Your task to perform on an android device: open app "Upside-Cash back on gas & food" (install if not already installed), go to login, and select forgot password Image 0: 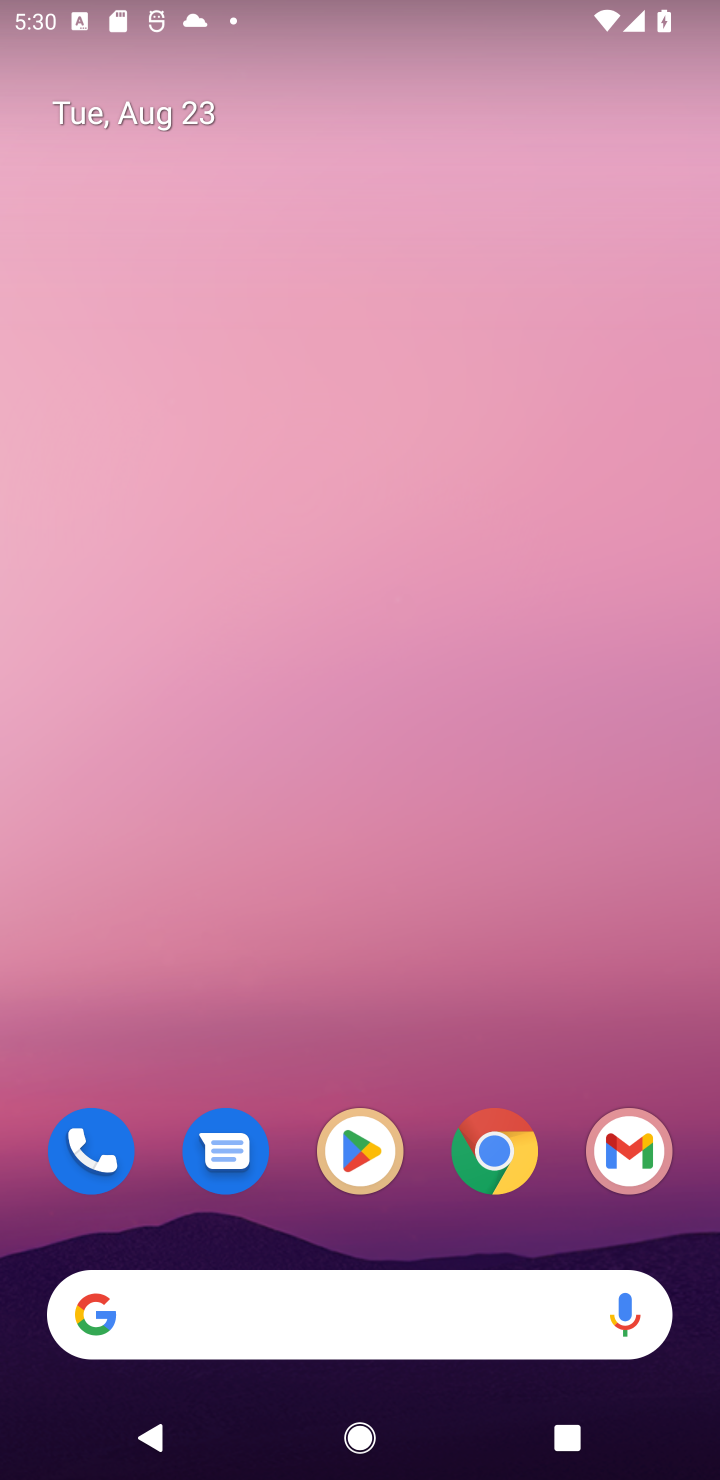
Step 0: click (368, 1147)
Your task to perform on an android device: open app "Upside-Cash back on gas & food" (install if not already installed), go to login, and select forgot password Image 1: 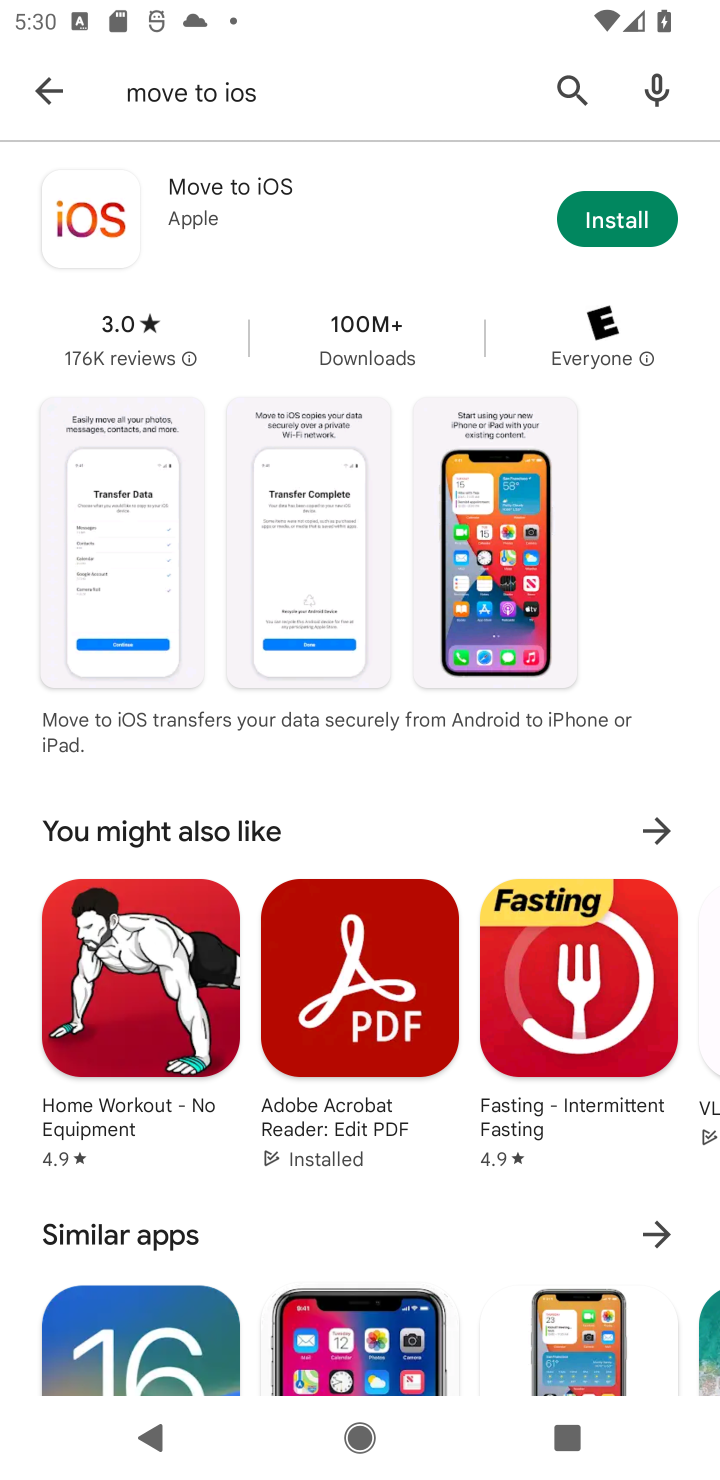
Step 1: click (582, 78)
Your task to perform on an android device: open app "Upside-Cash back on gas & food" (install if not already installed), go to login, and select forgot password Image 2: 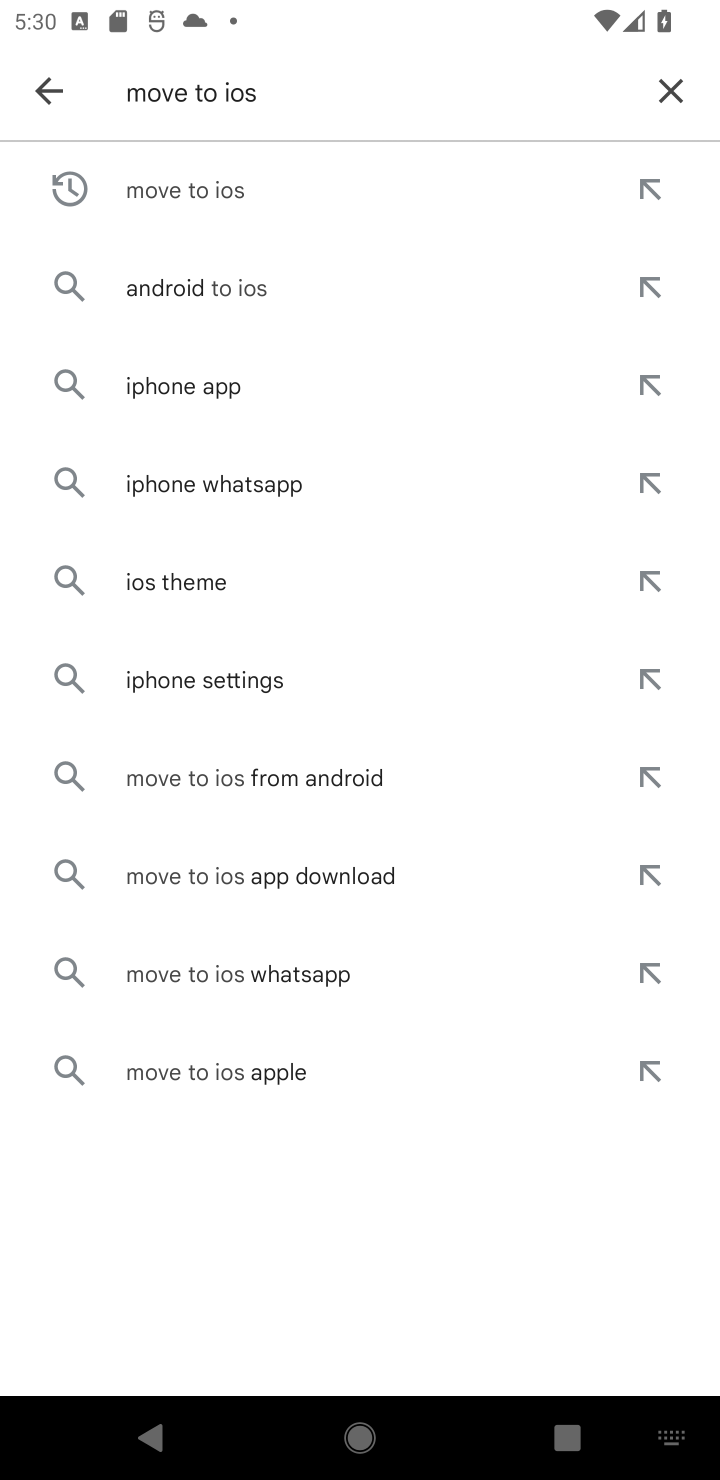
Step 2: click (667, 92)
Your task to perform on an android device: open app "Upside-Cash back on gas & food" (install if not already installed), go to login, and select forgot password Image 3: 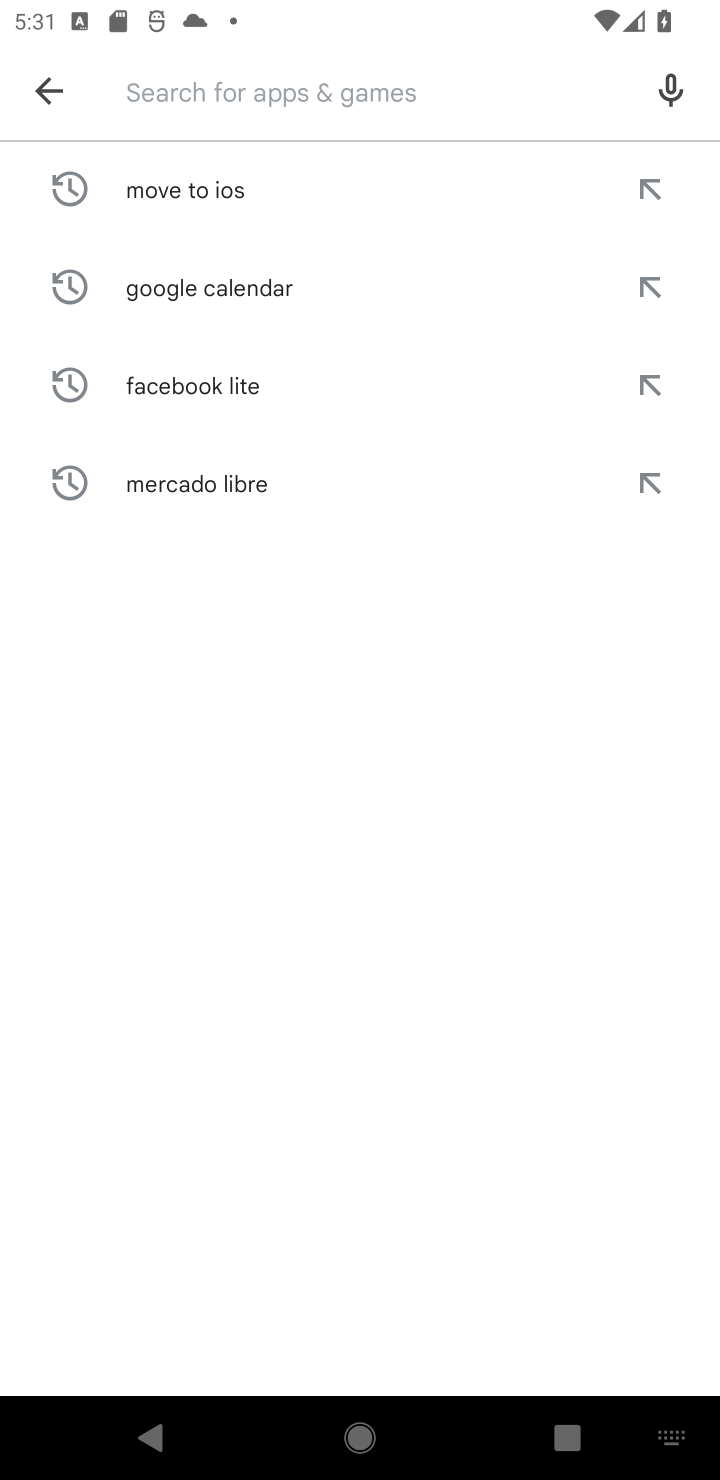
Step 3: type "Upside-Cash back on gas & food"
Your task to perform on an android device: open app "Upside-Cash back on gas & food" (install if not already installed), go to login, and select forgot password Image 4: 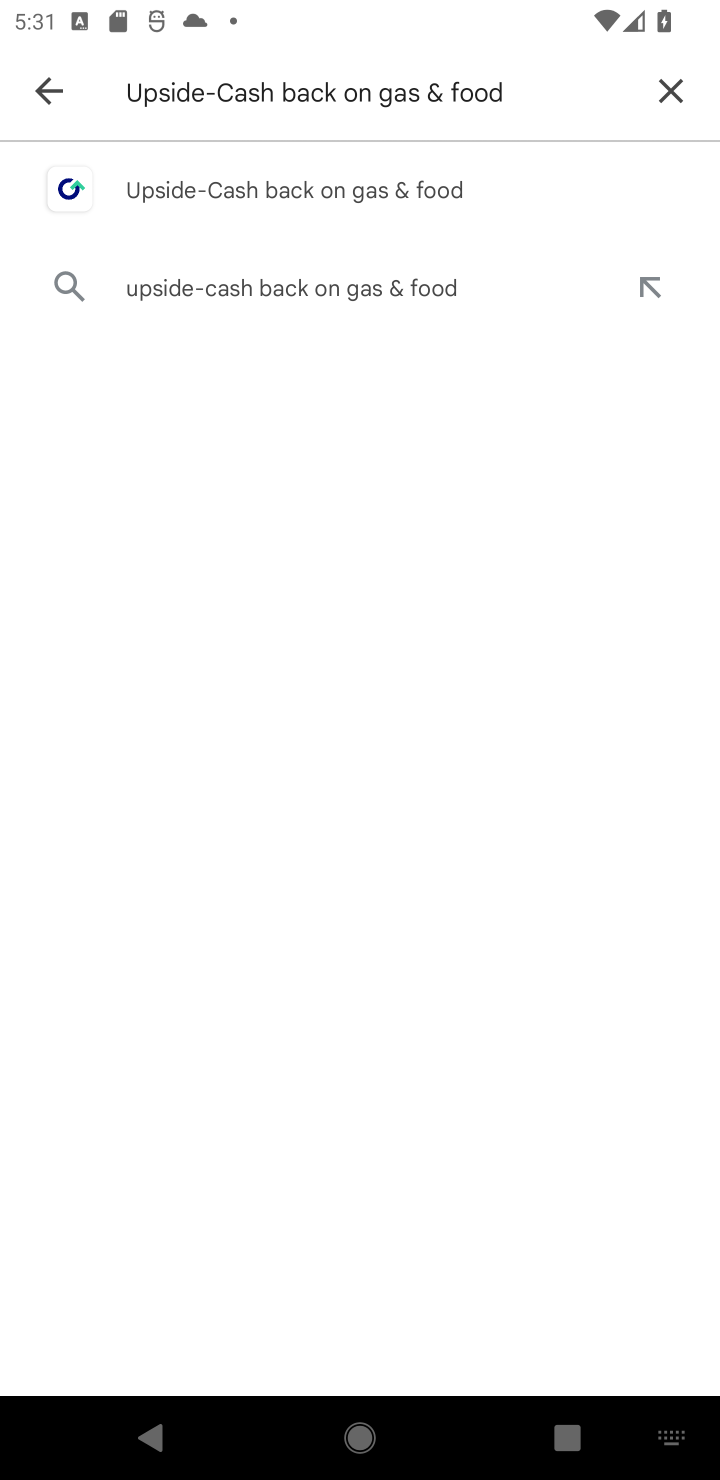
Step 4: click (384, 199)
Your task to perform on an android device: open app "Upside-Cash back on gas & food" (install if not already installed), go to login, and select forgot password Image 5: 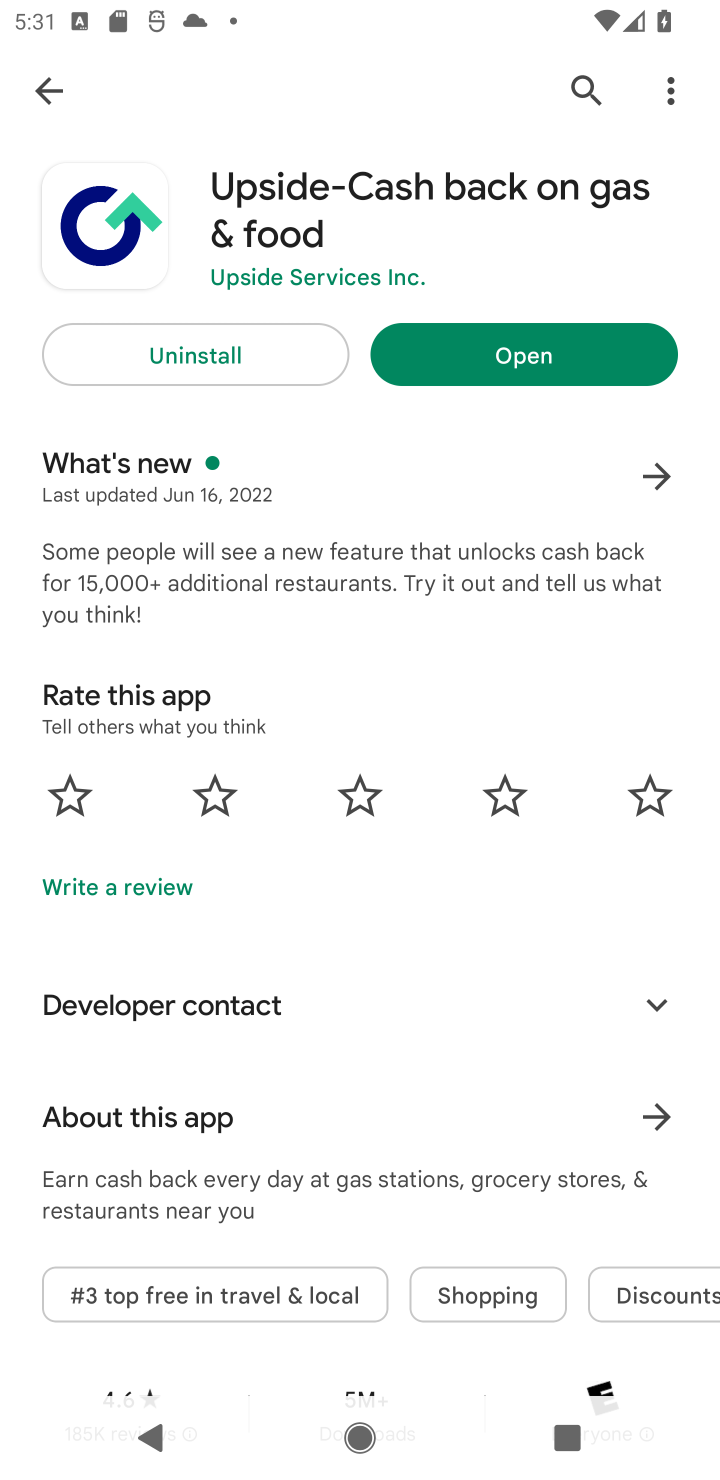
Step 5: click (501, 349)
Your task to perform on an android device: open app "Upside-Cash back on gas & food" (install if not already installed), go to login, and select forgot password Image 6: 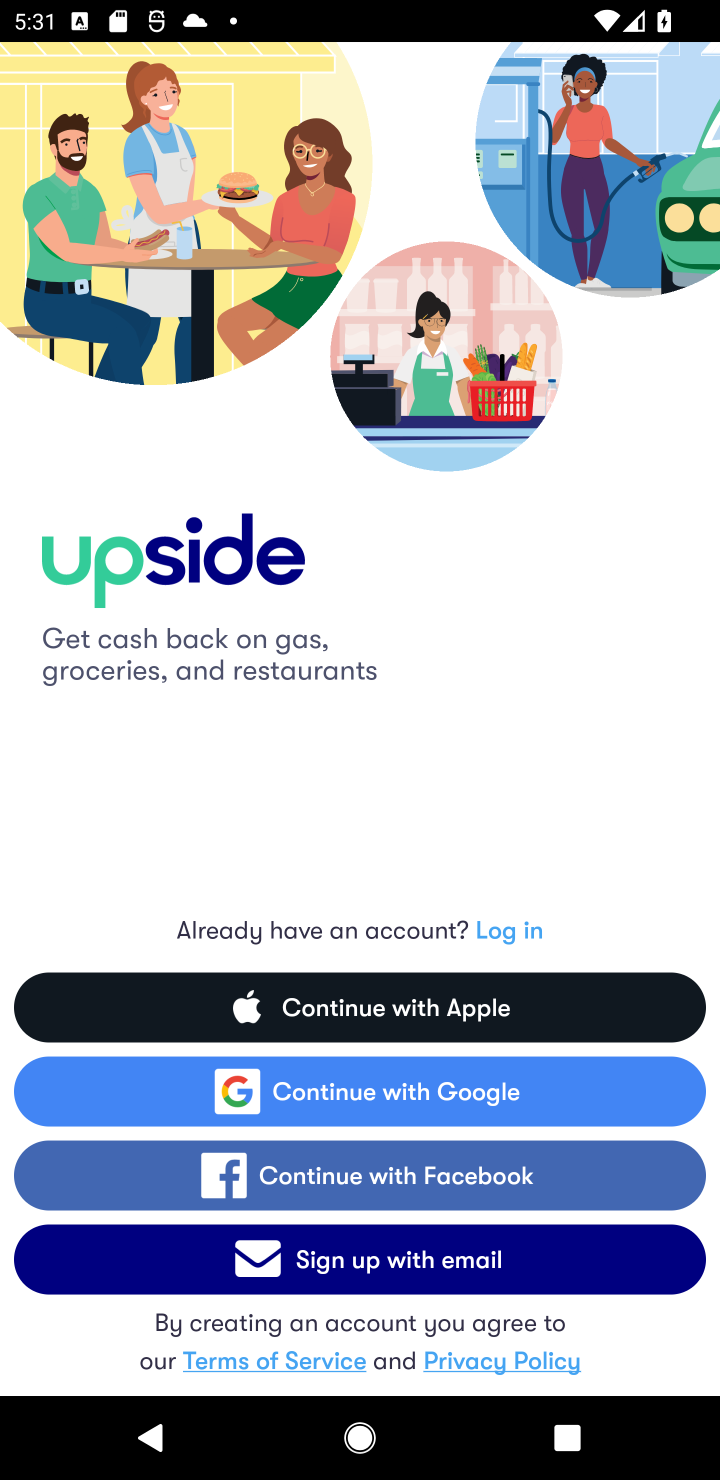
Step 6: click (488, 917)
Your task to perform on an android device: open app "Upside-Cash back on gas & food" (install if not already installed), go to login, and select forgot password Image 7: 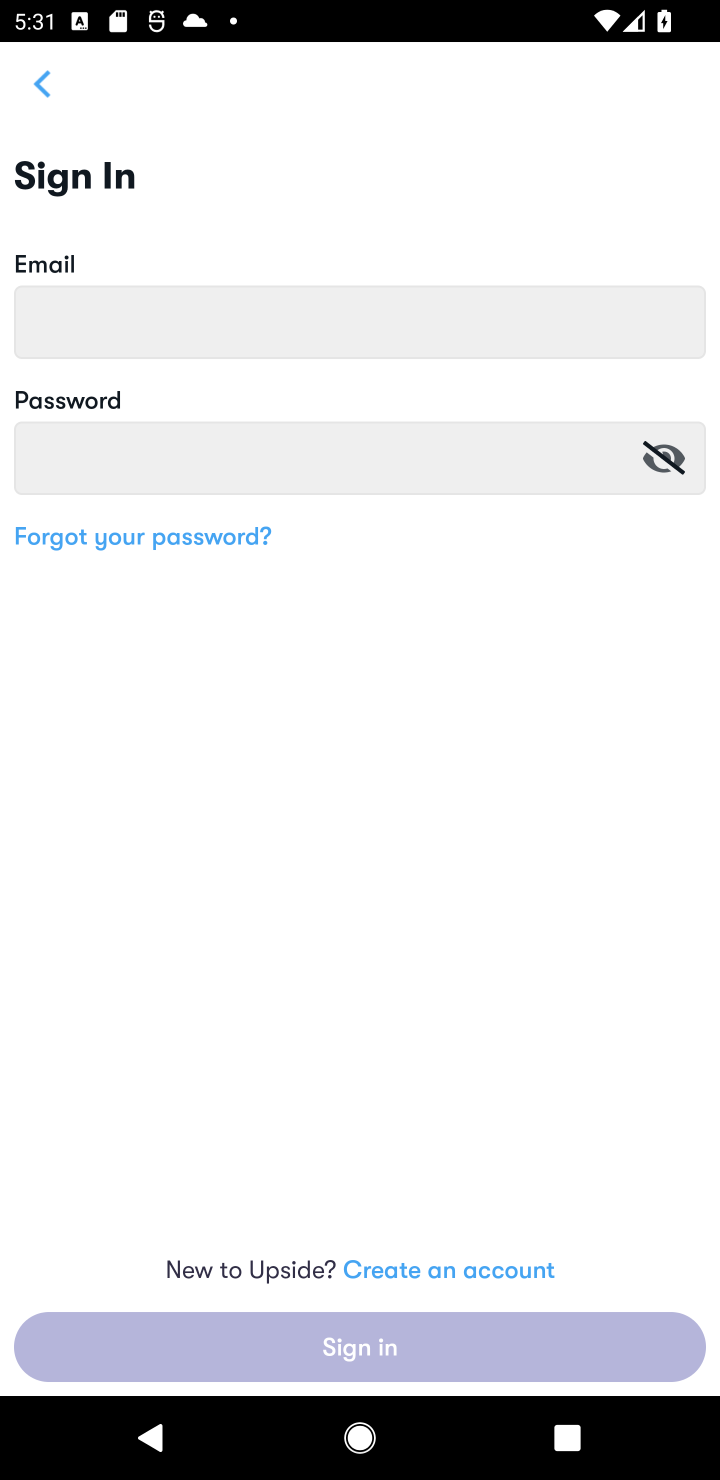
Step 7: click (194, 521)
Your task to perform on an android device: open app "Upside-Cash back on gas & food" (install if not already installed), go to login, and select forgot password Image 8: 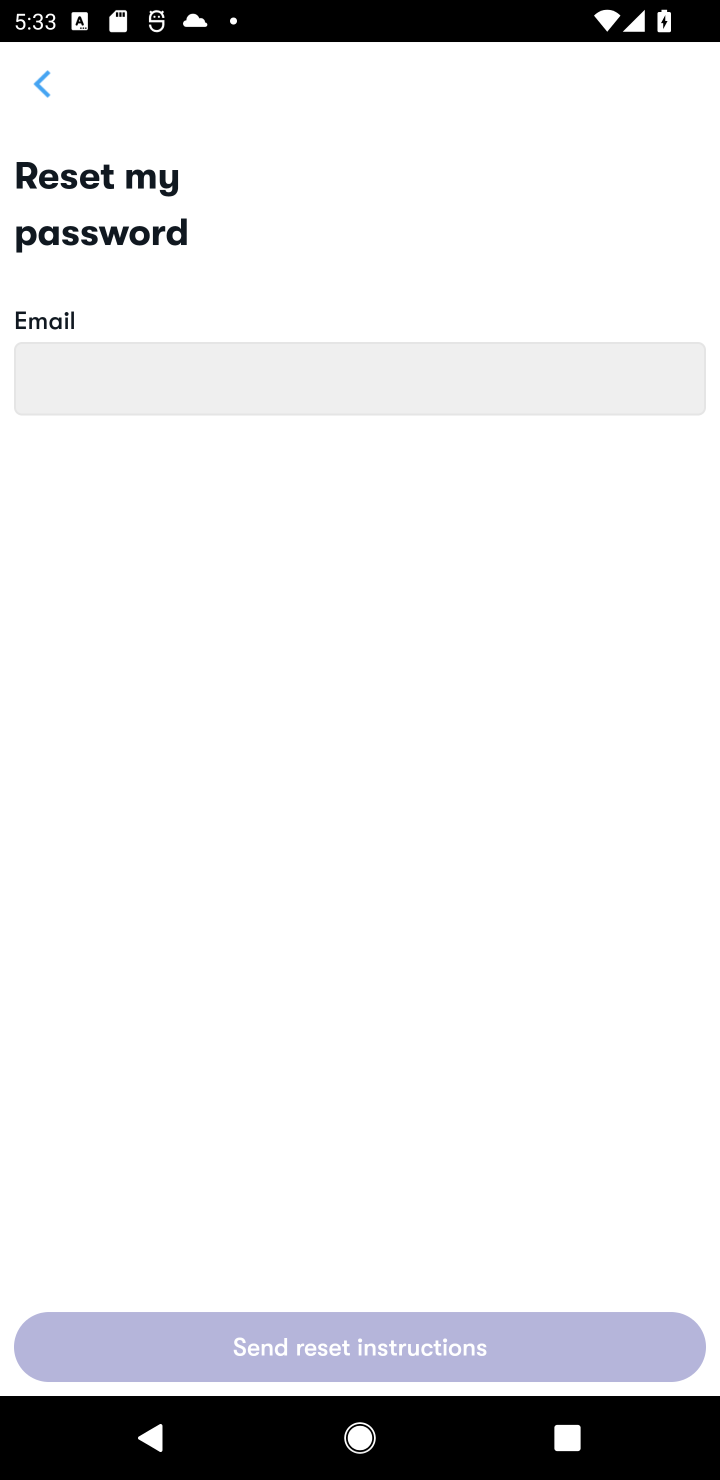
Step 8: task complete